Your task to perform on an android device: open app "Viber Messenger" (install if not already installed), go to login, and select forgot password Image 0: 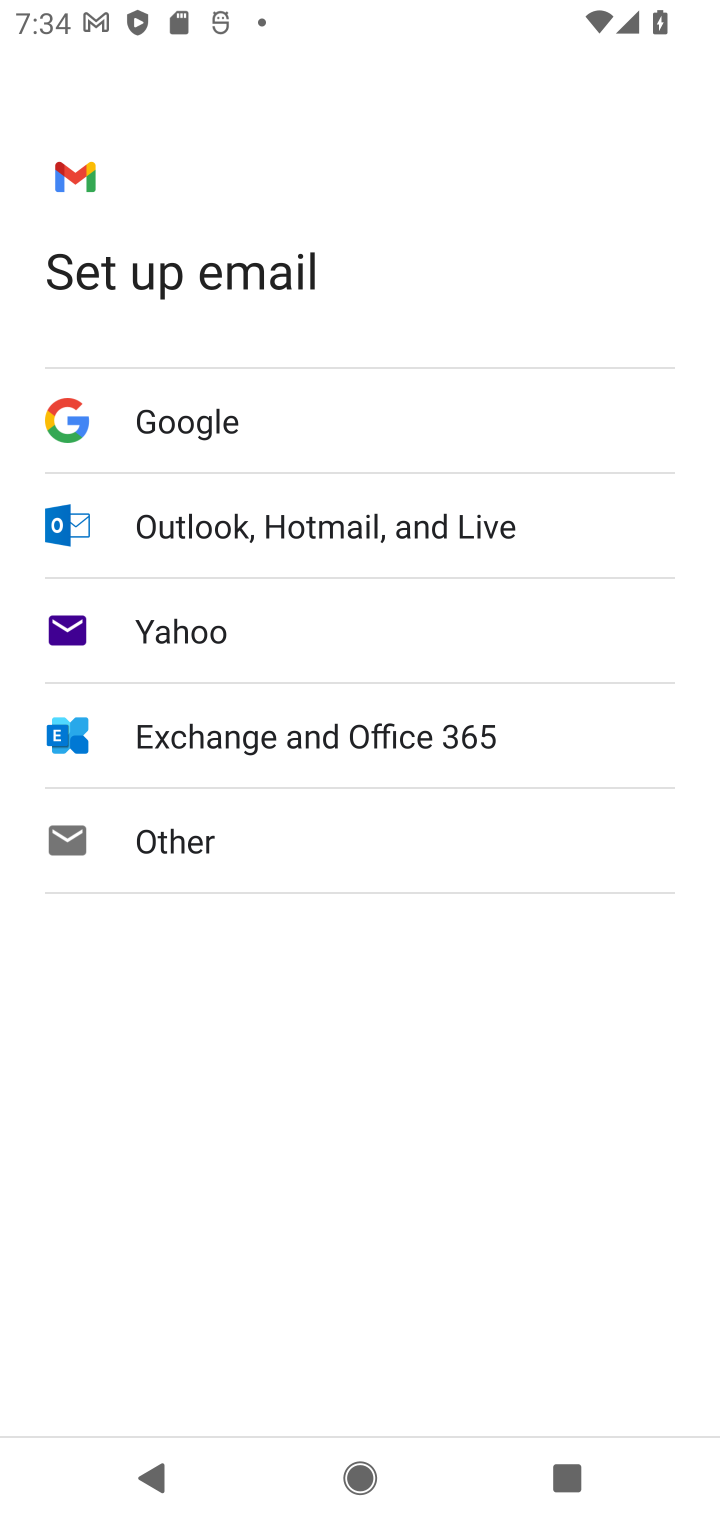
Step 0: press back button
Your task to perform on an android device: open app "Viber Messenger" (install if not already installed), go to login, and select forgot password Image 1: 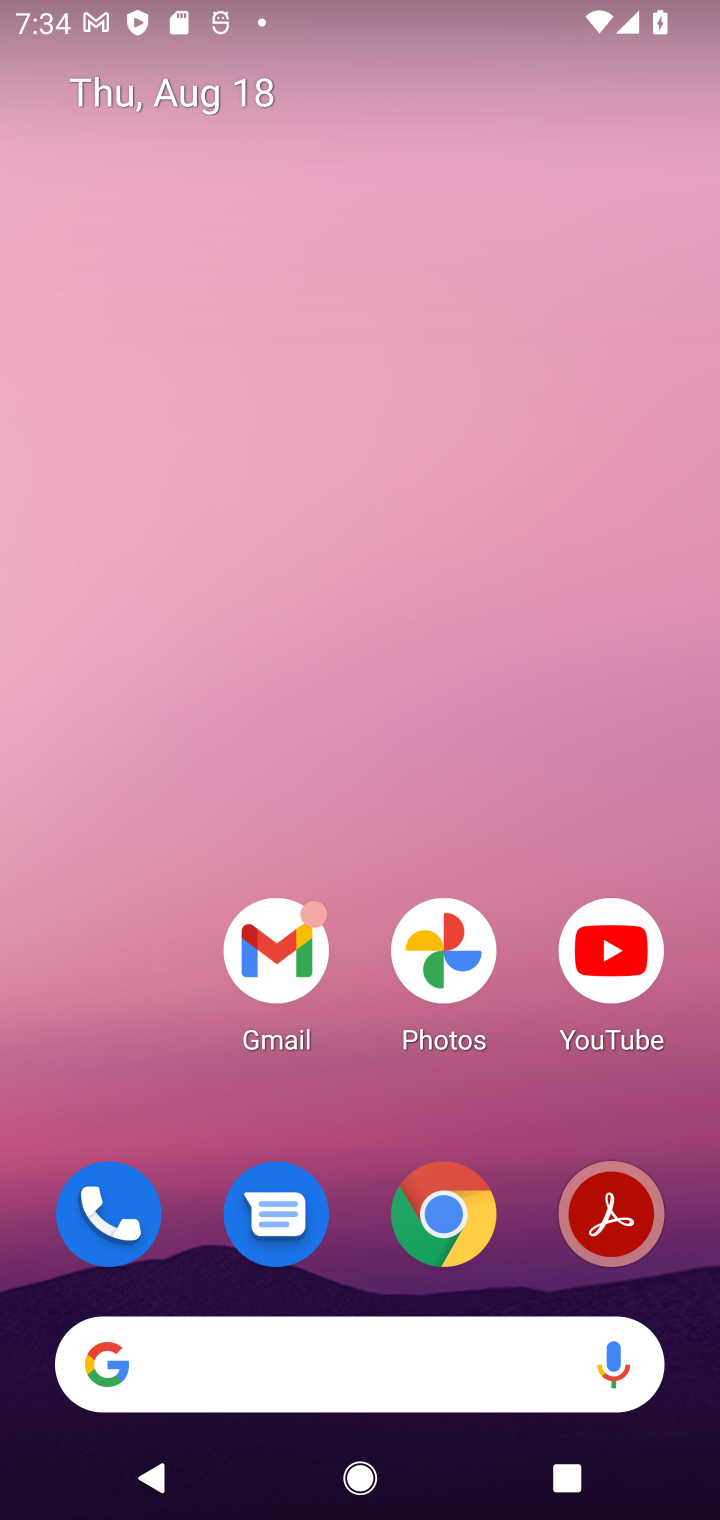
Step 1: drag from (166, 955) to (405, 102)
Your task to perform on an android device: open app "Viber Messenger" (install if not already installed), go to login, and select forgot password Image 2: 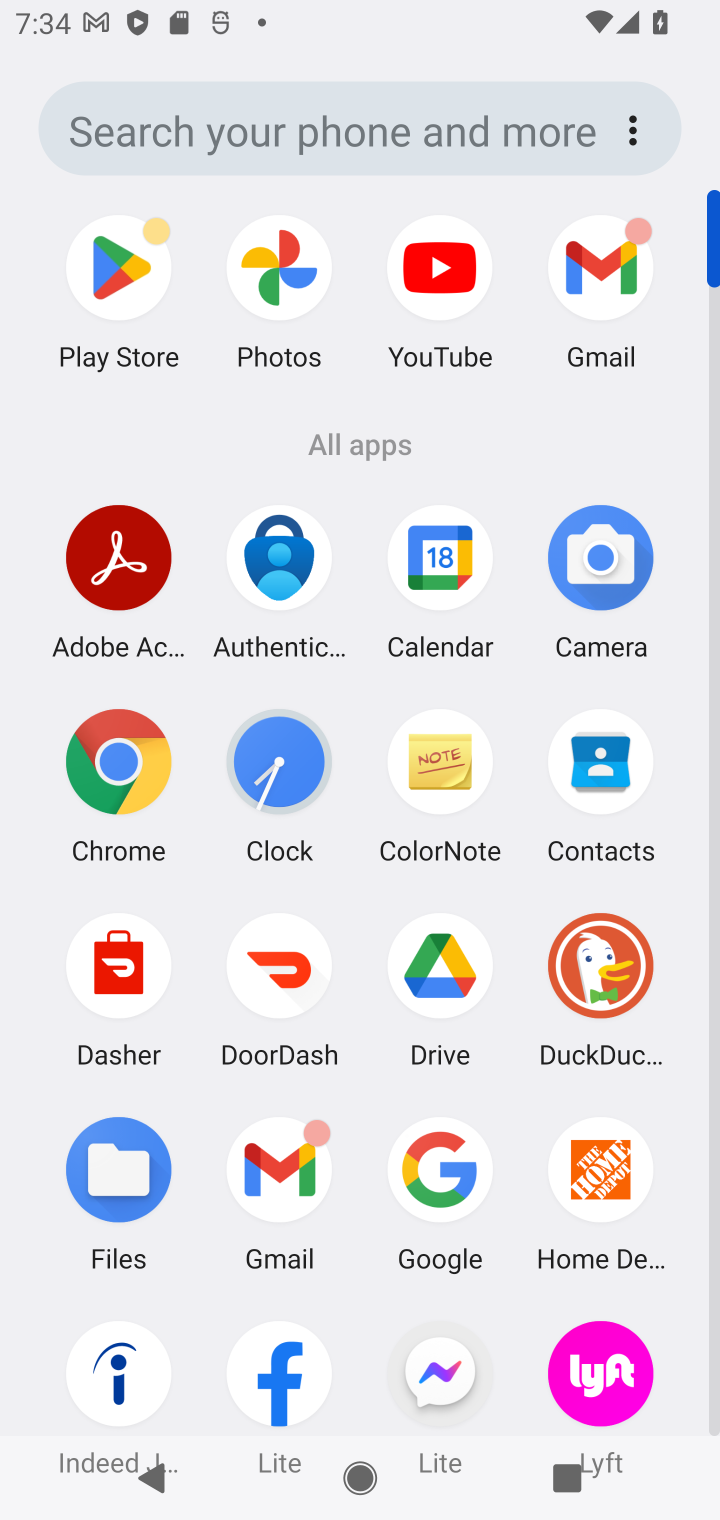
Step 2: click (140, 264)
Your task to perform on an android device: open app "Viber Messenger" (install if not already installed), go to login, and select forgot password Image 3: 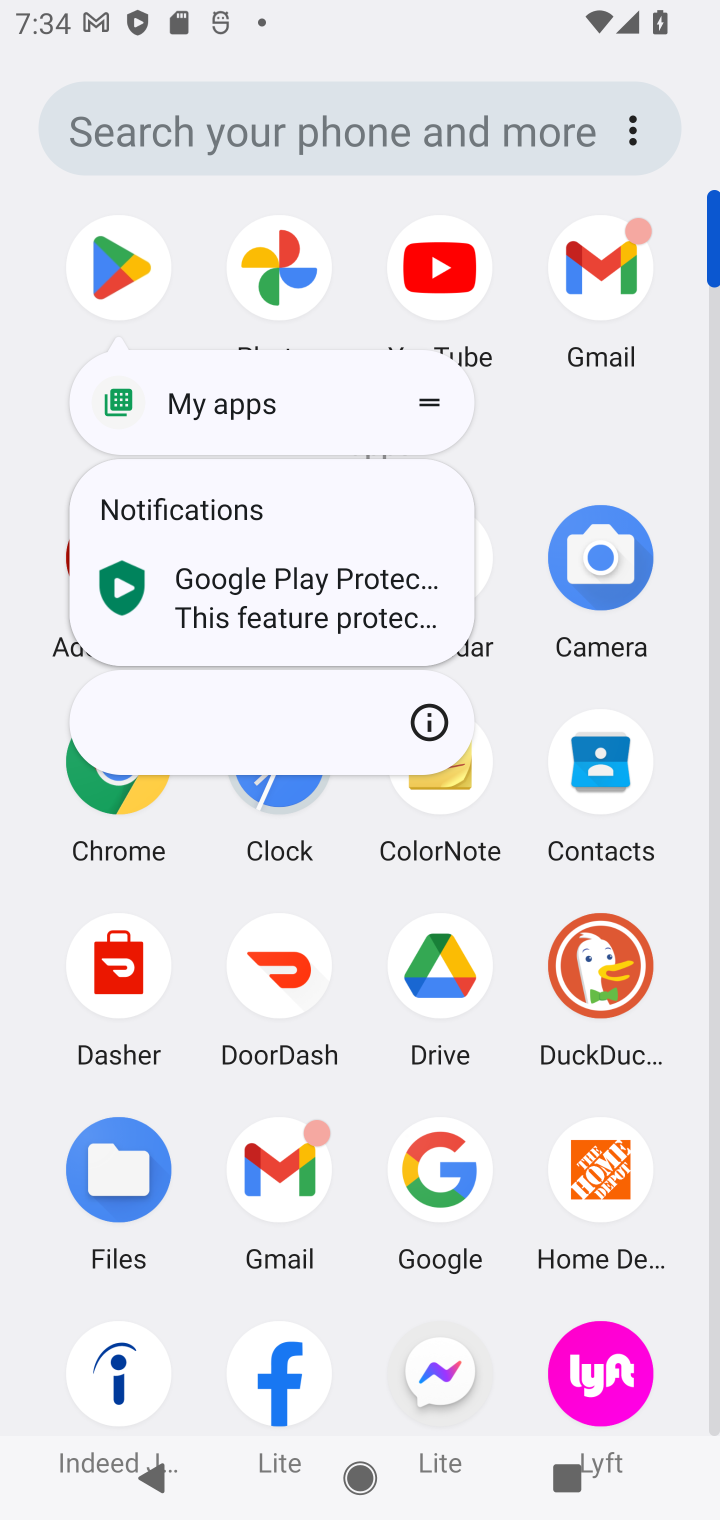
Step 3: click (139, 265)
Your task to perform on an android device: open app "Viber Messenger" (install if not already installed), go to login, and select forgot password Image 4: 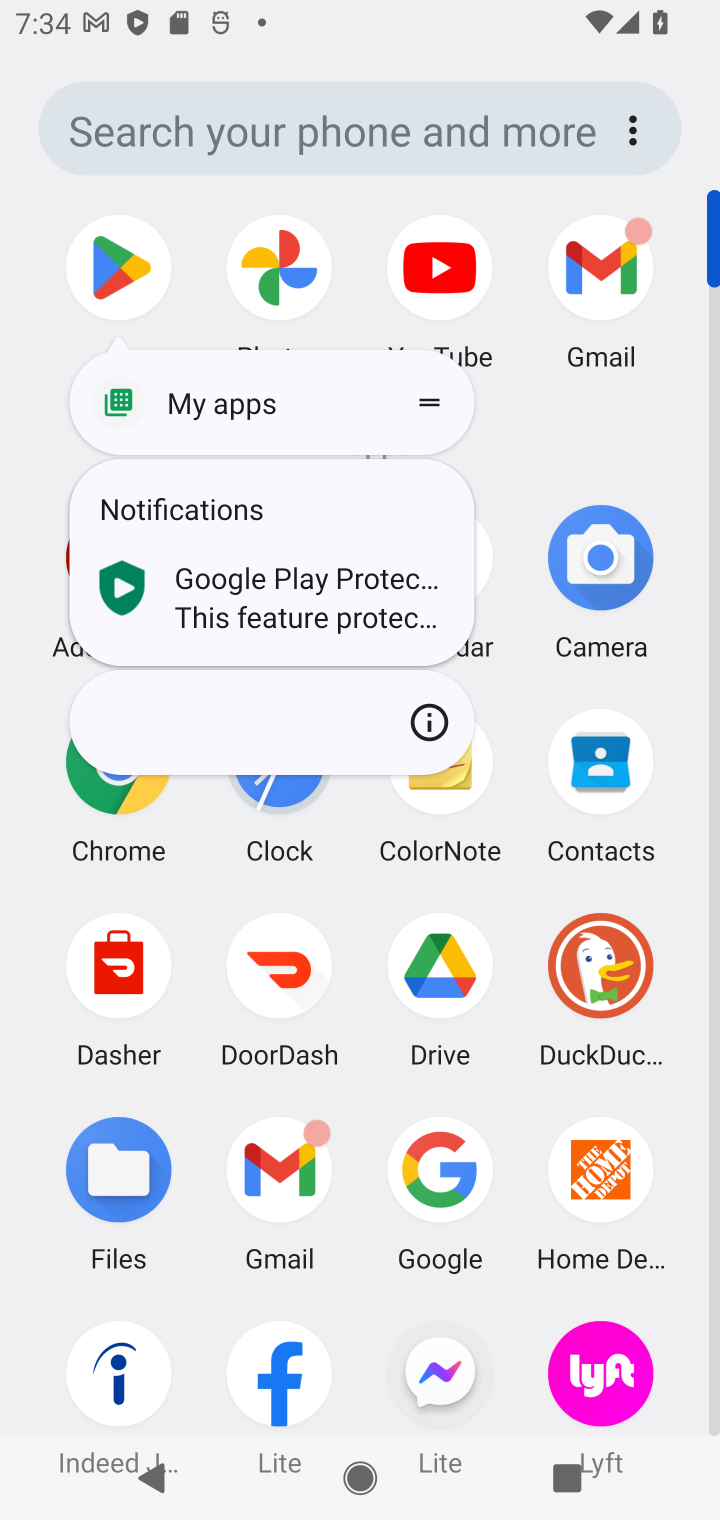
Step 4: click (105, 276)
Your task to perform on an android device: open app "Viber Messenger" (install if not already installed), go to login, and select forgot password Image 5: 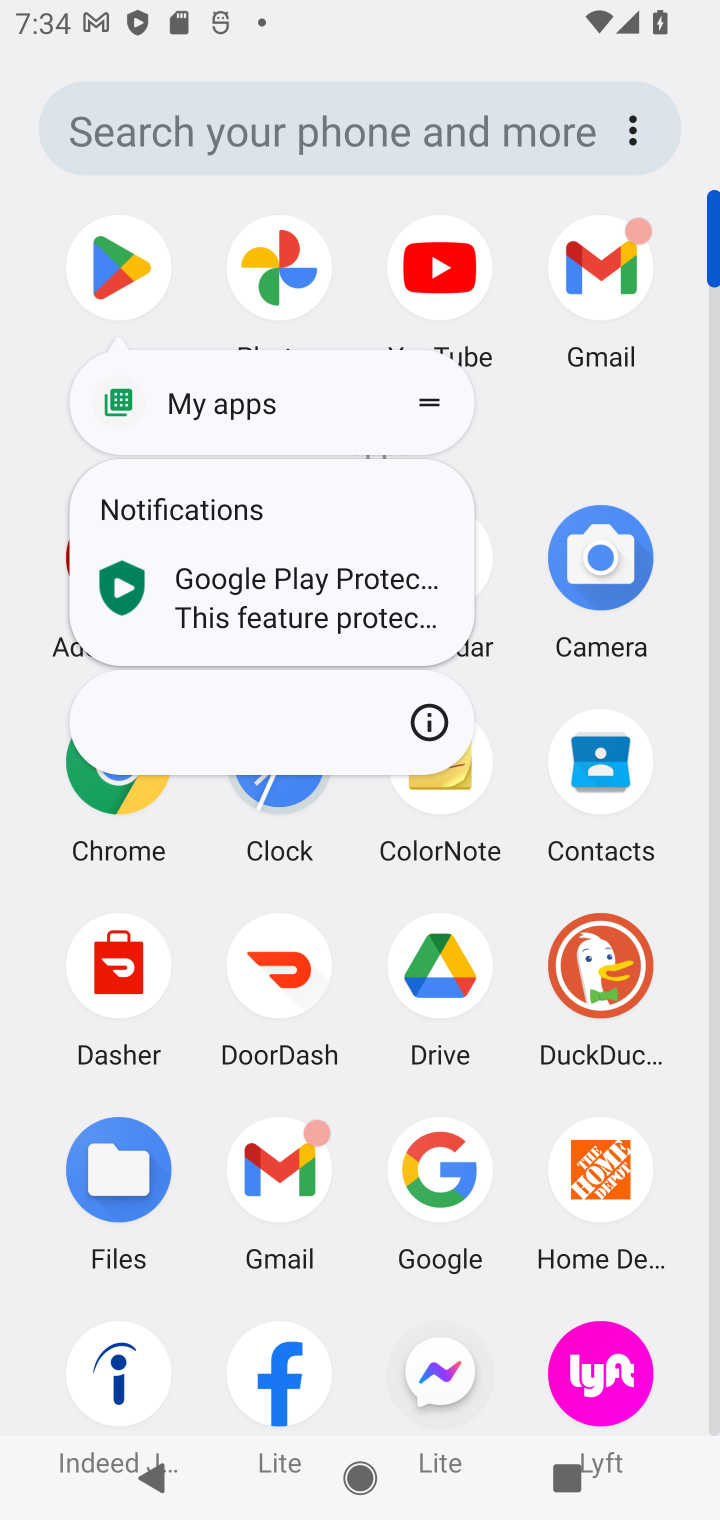
Step 5: click (112, 276)
Your task to perform on an android device: open app "Viber Messenger" (install if not already installed), go to login, and select forgot password Image 6: 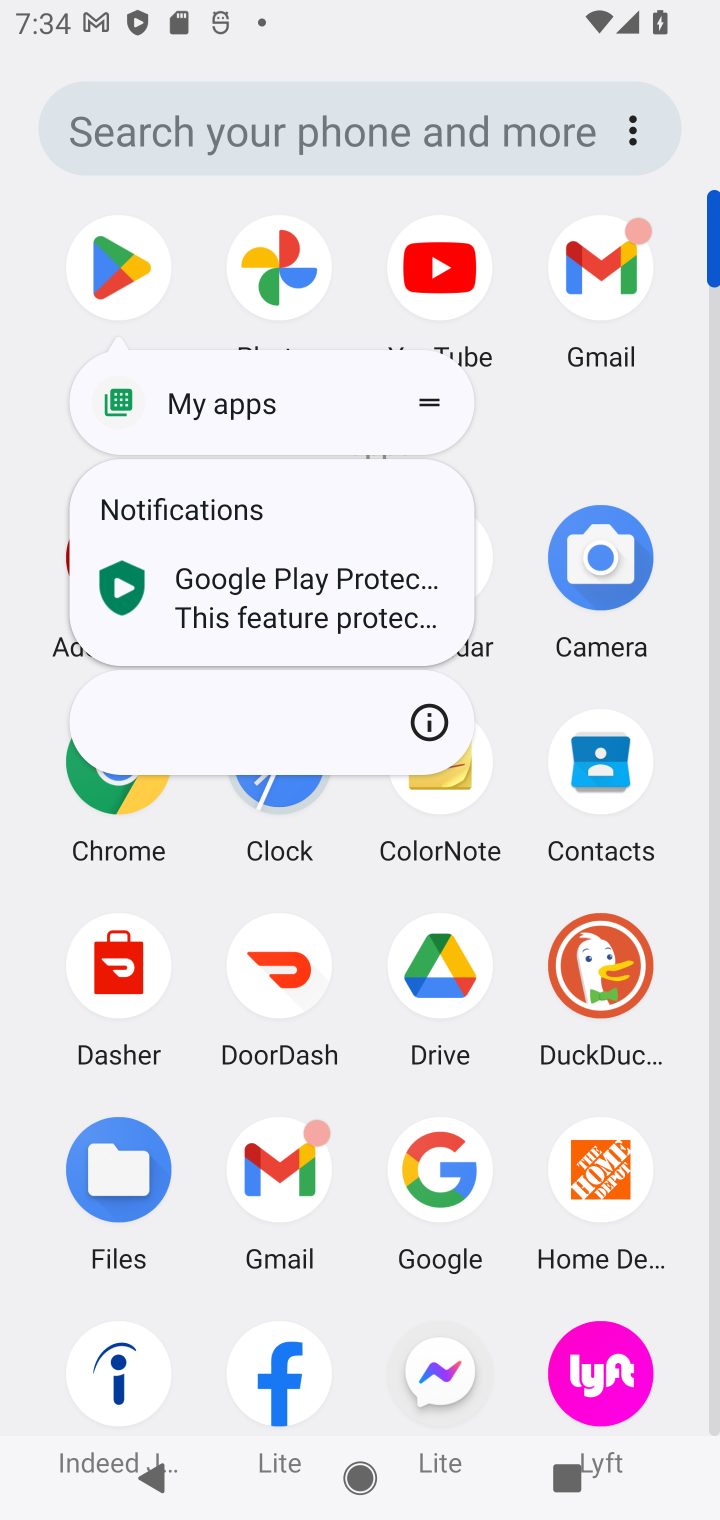
Step 6: click (108, 270)
Your task to perform on an android device: open app "Viber Messenger" (install if not already installed), go to login, and select forgot password Image 7: 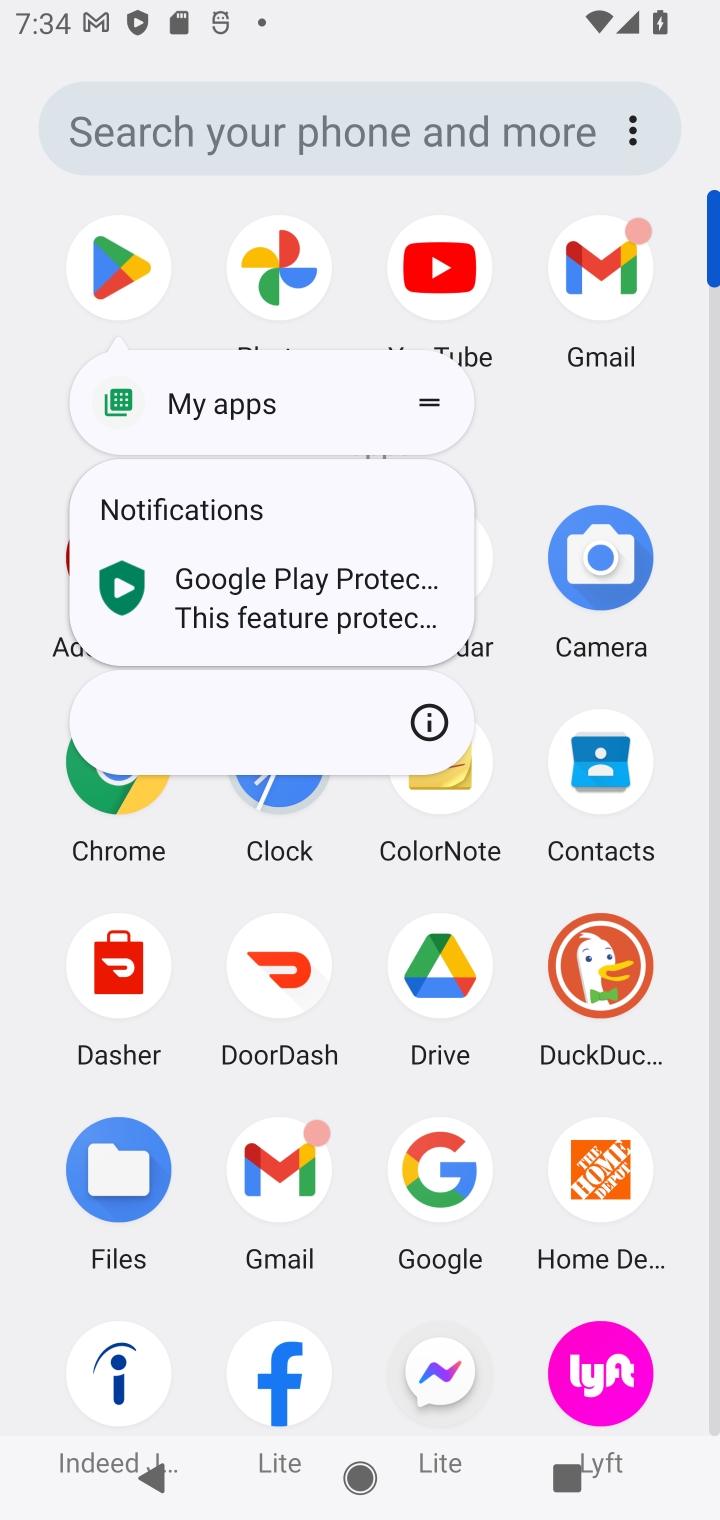
Step 7: click (108, 270)
Your task to perform on an android device: open app "Viber Messenger" (install if not already installed), go to login, and select forgot password Image 8: 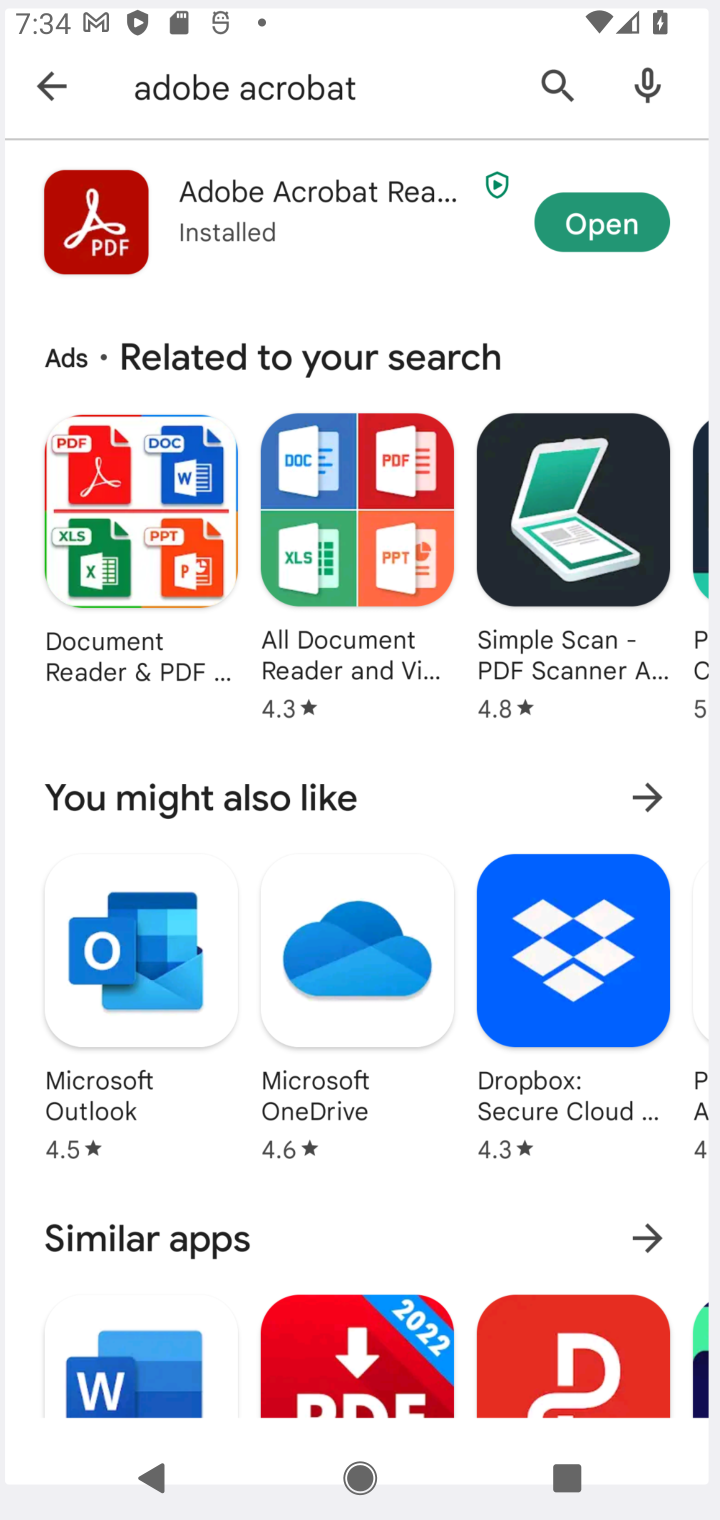
Step 8: click (108, 270)
Your task to perform on an android device: open app "Viber Messenger" (install if not already installed), go to login, and select forgot password Image 9: 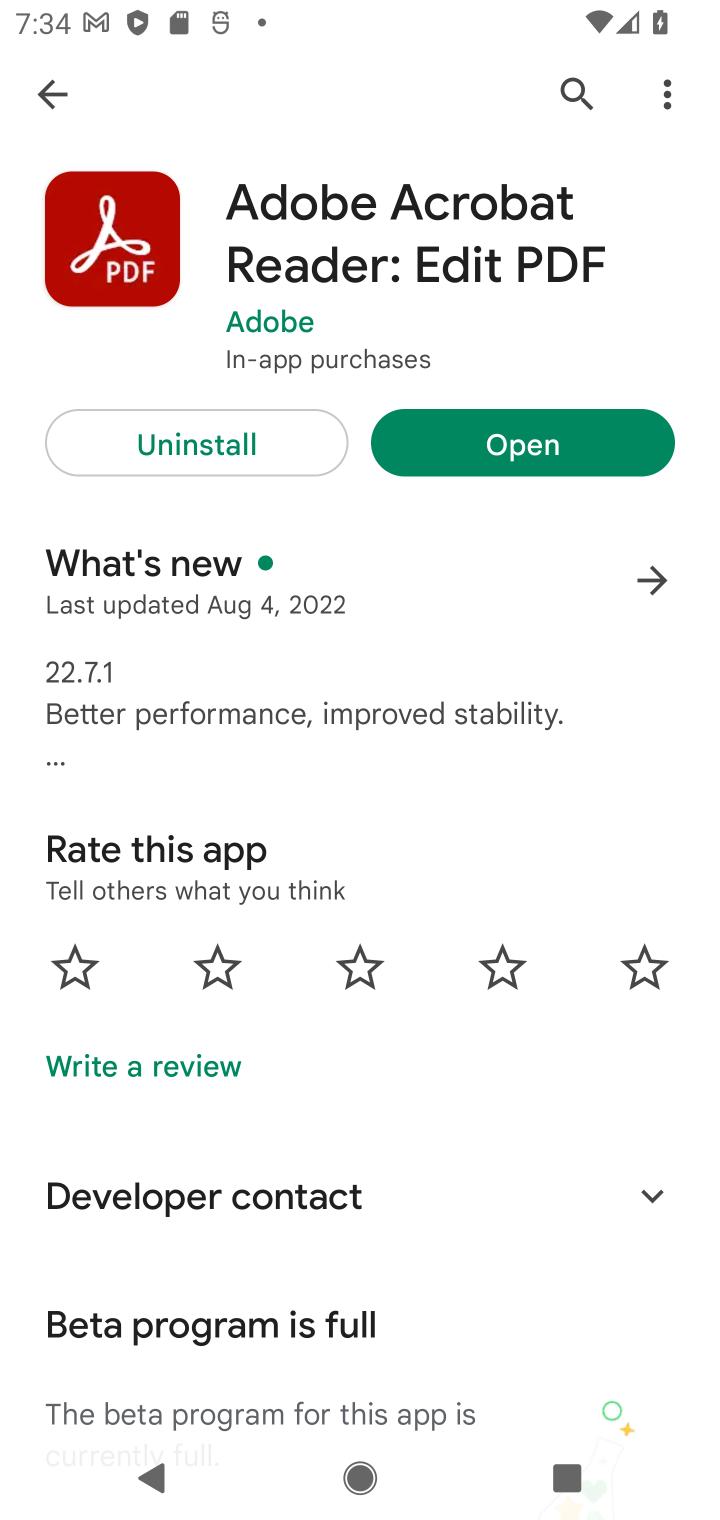
Step 9: click (548, 71)
Your task to perform on an android device: open app "Viber Messenger" (install if not already installed), go to login, and select forgot password Image 10: 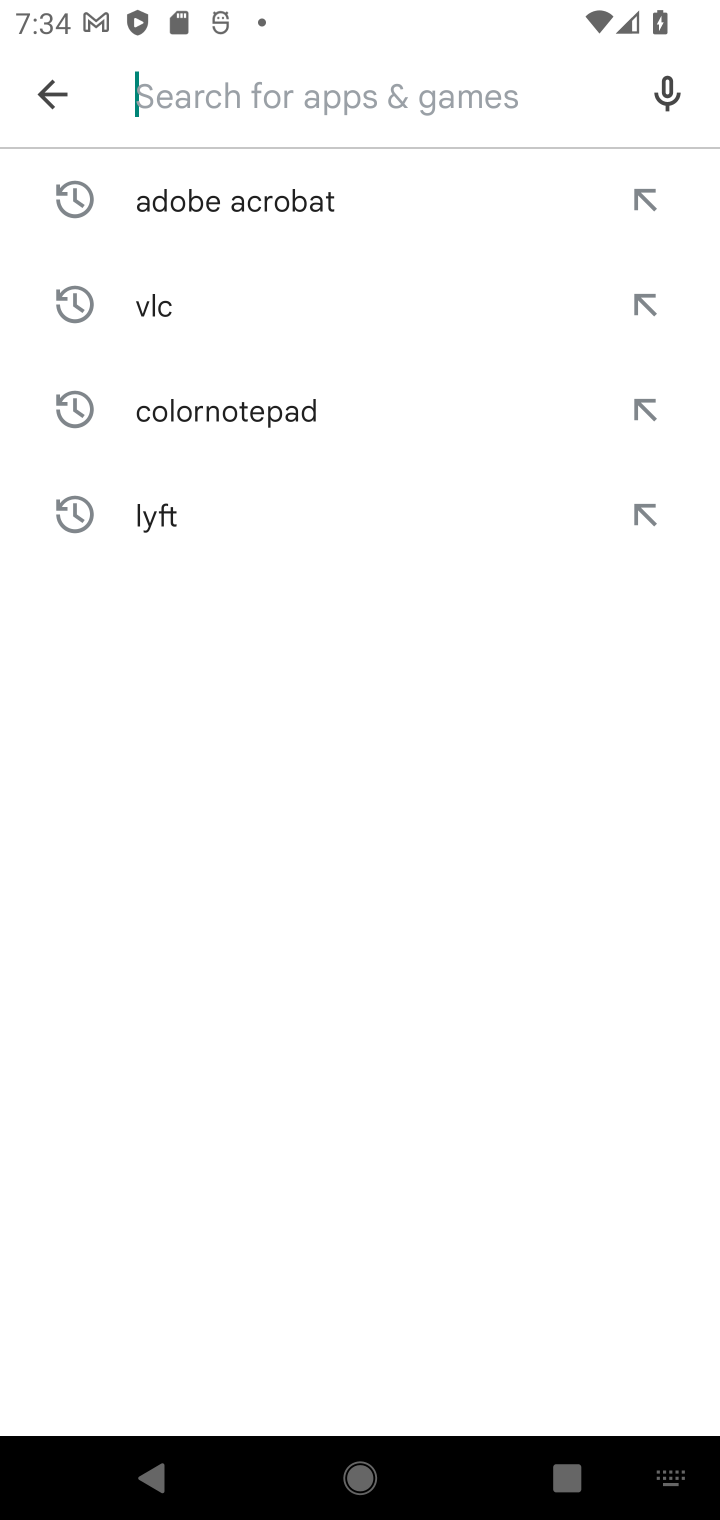
Step 10: click (196, 112)
Your task to perform on an android device: open app "Viber Messenger" (install if not already installed), go to login, and select forgot password Image 11: 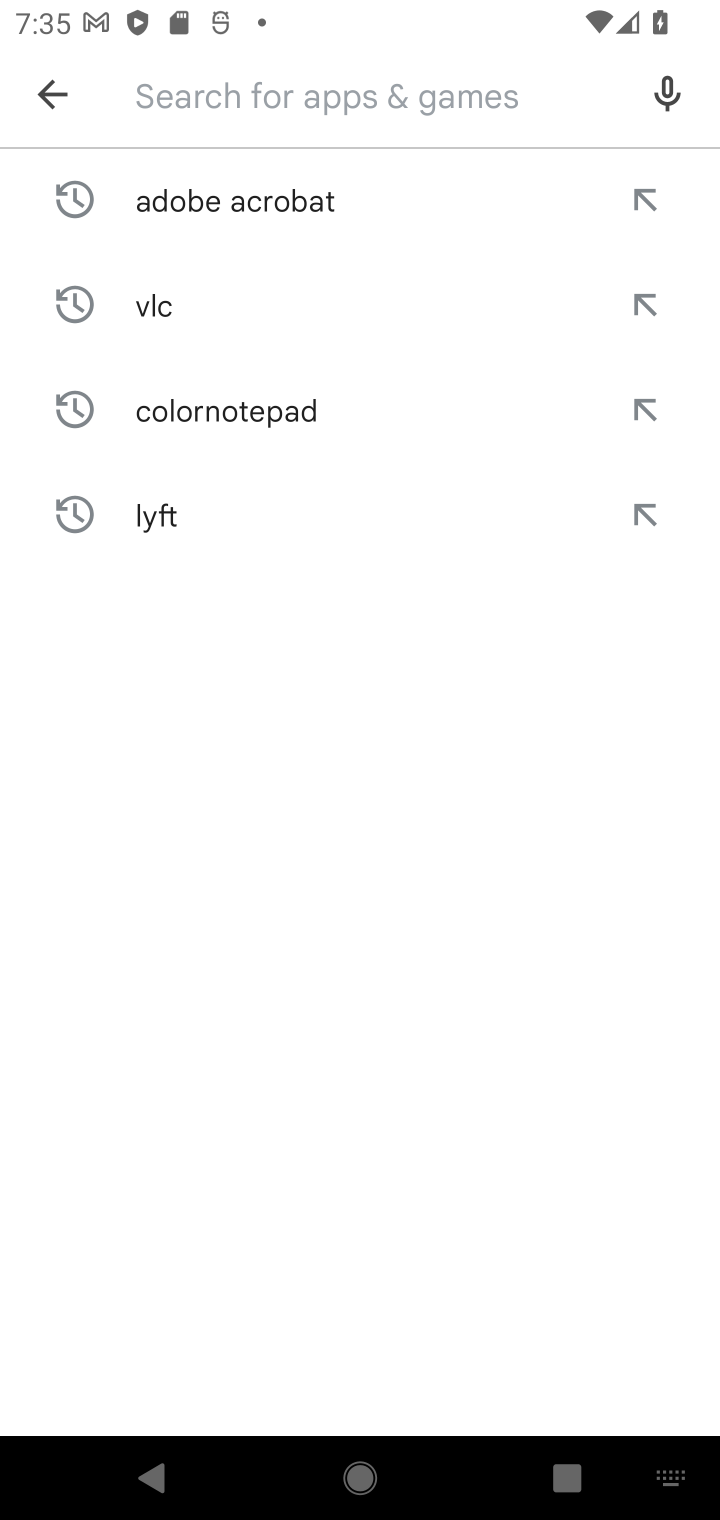
Step 11: type "viber messenger"
Your task to perform on an android device: open app "Viber Messenger" (install if not already installed), go to login, and select forgot password Image 12: 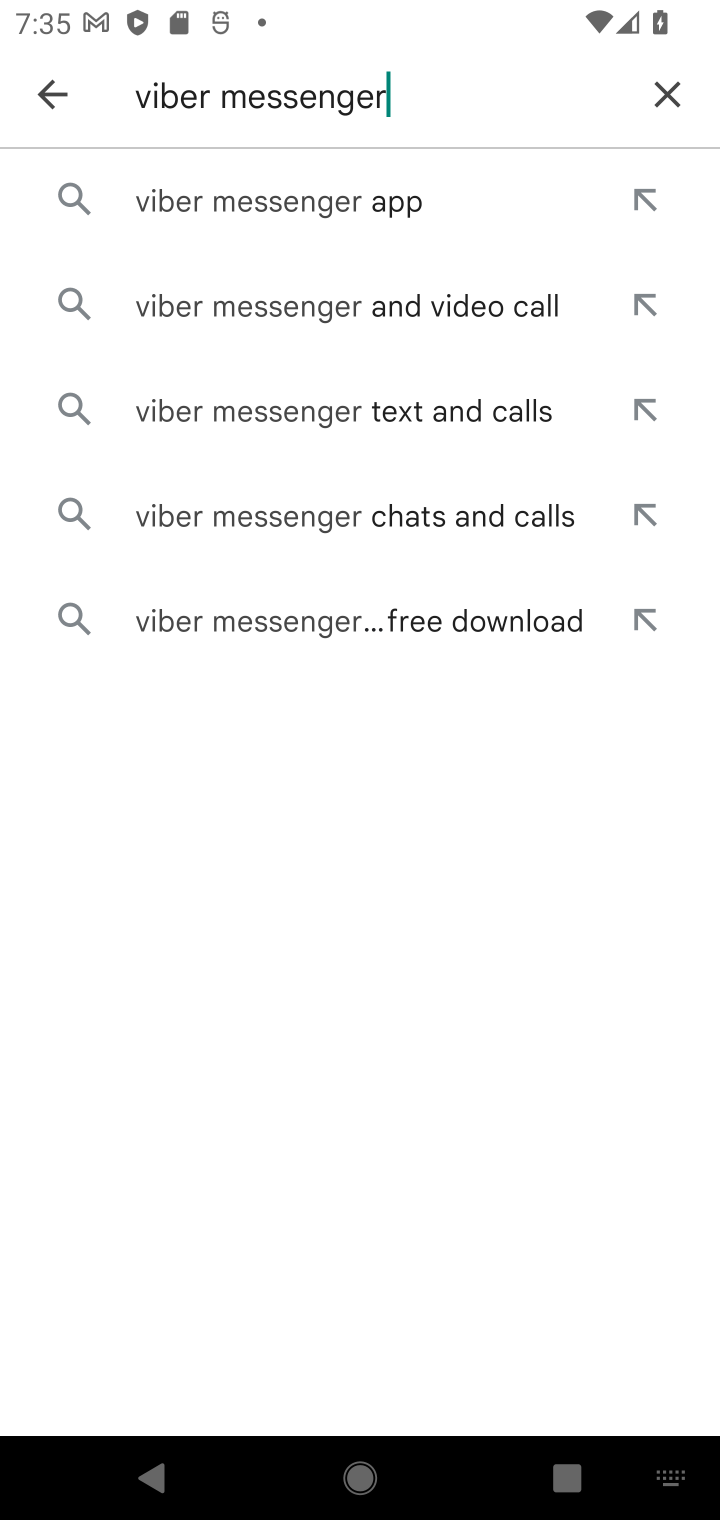
Step 12: click (419, 194)
Your task to perform on an android device: open app "Viber Messenger" (install if not already installed), go to login, and select forgot password Image 13: 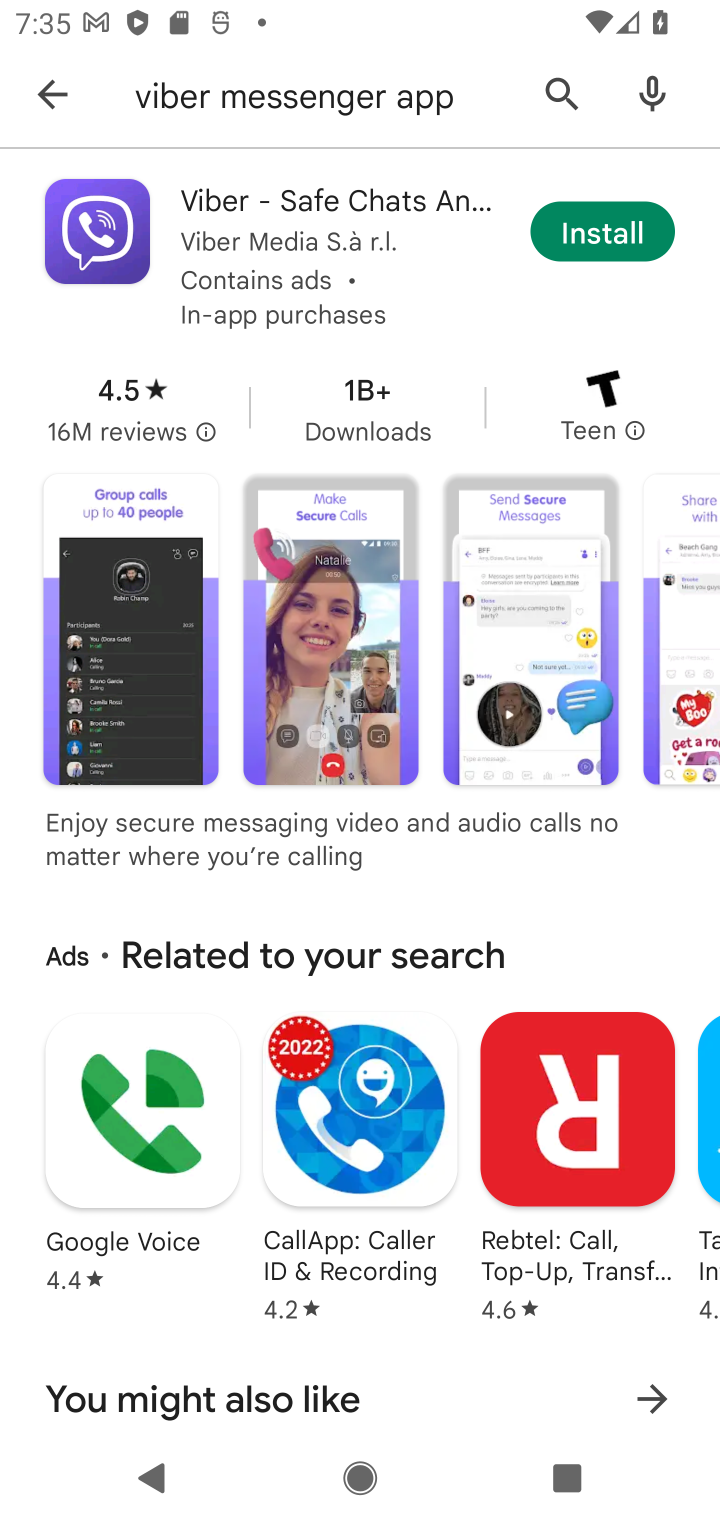
Step 13: click (576, 215)
Your task to perform on an android device: open app "Viber Messenger" (install if not already installed), go to login, and select forgot password Image 14: 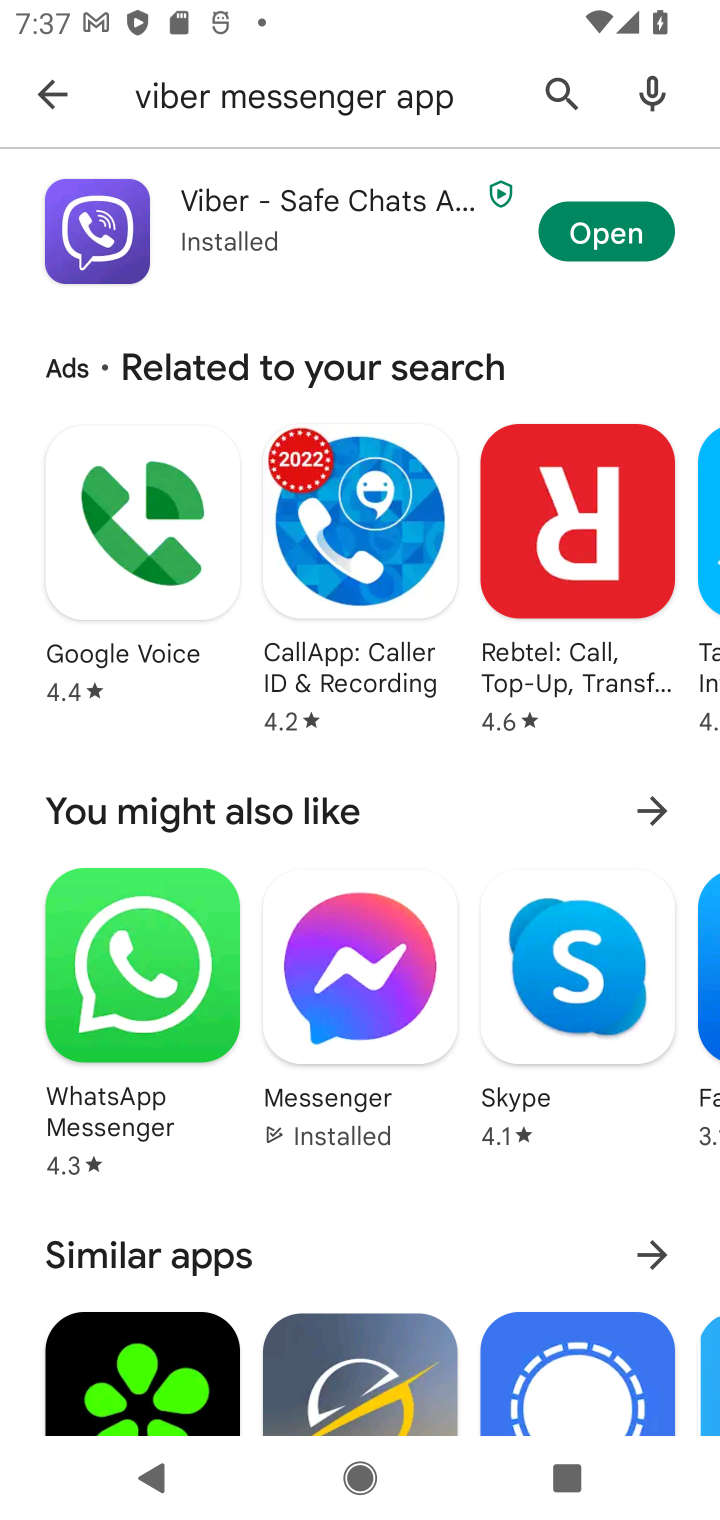
Step 14: click (591, 235)
Your task to perform on an android device: open app "Viber Messenger" (install if not already installed), go to login, and select forgot password Image 15: 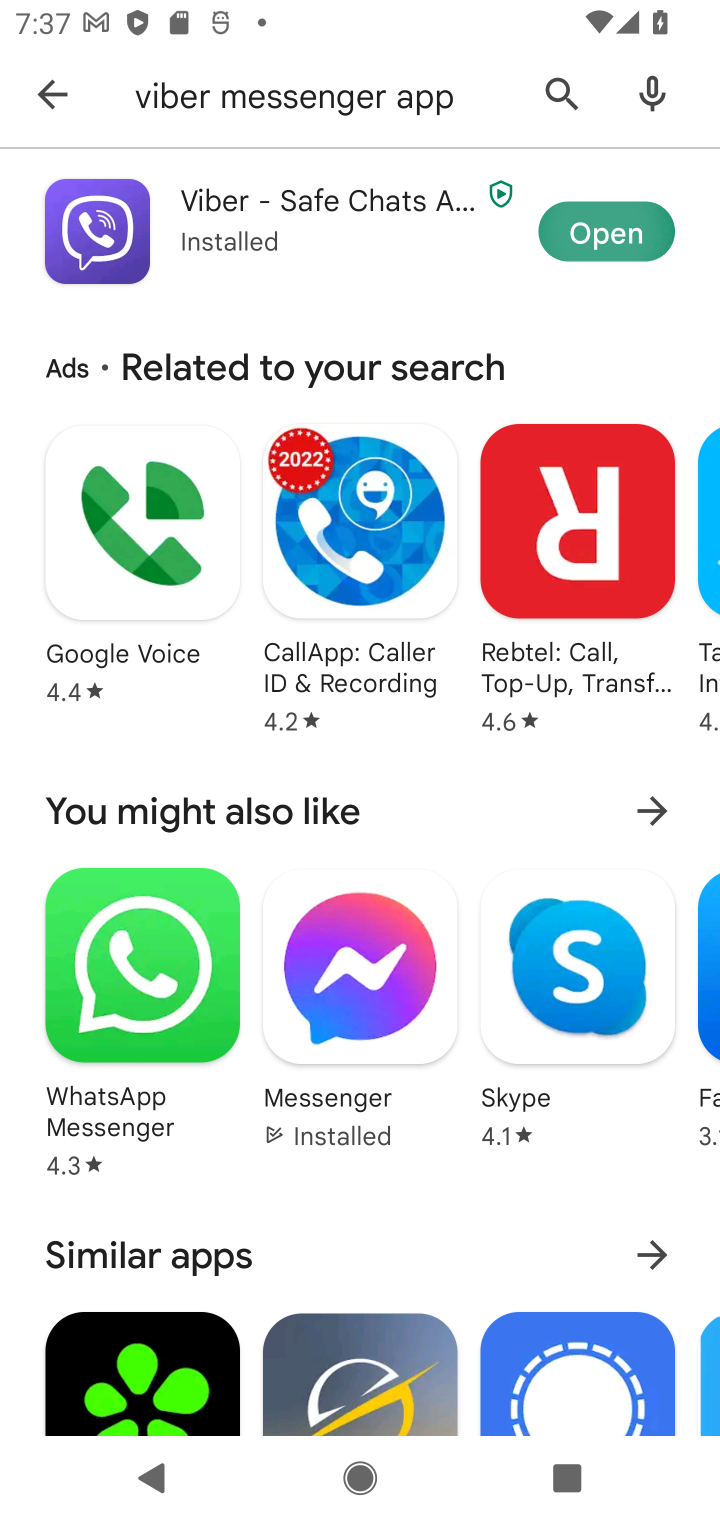
Step 15: task complete